Your task to perform on an android device: Go to sound settings Image 0: 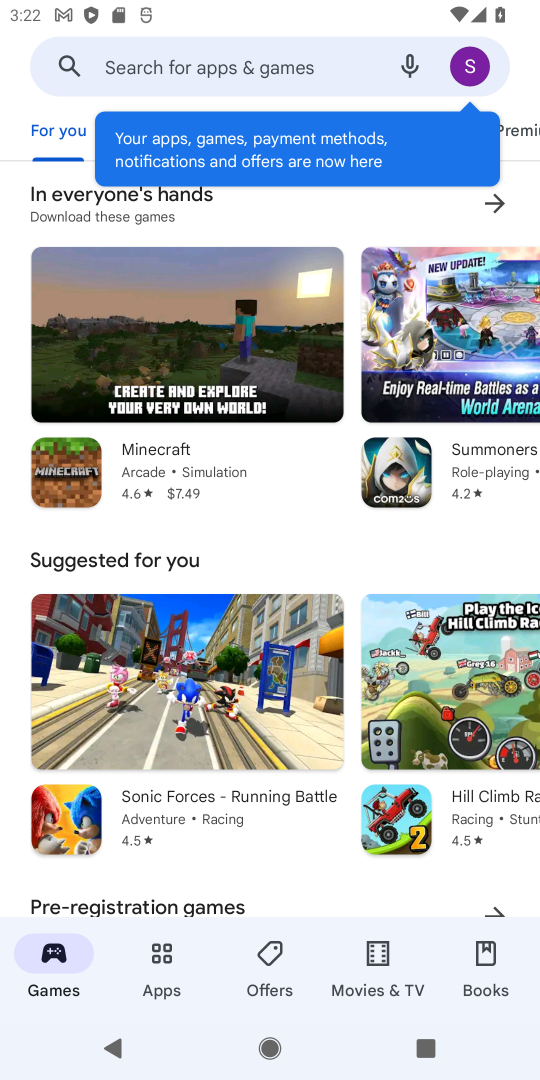
Step 0: press home button
Your task to perform on an android device: Go to sound settings Image 1: 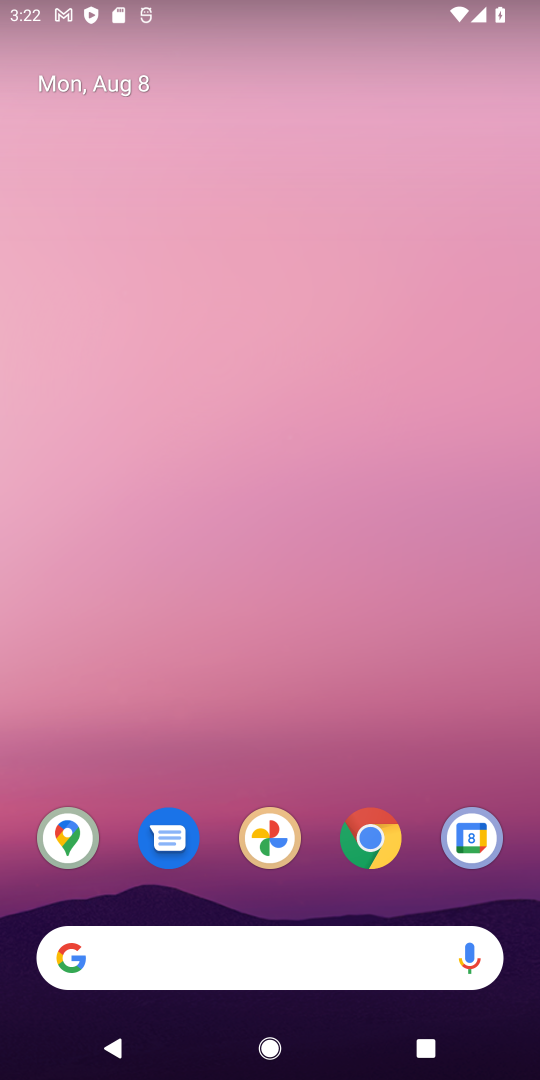
Step 1: drag from (233, 967) to (318, 290)
Your task to perform on an android device: Go to sound settings Image 2: 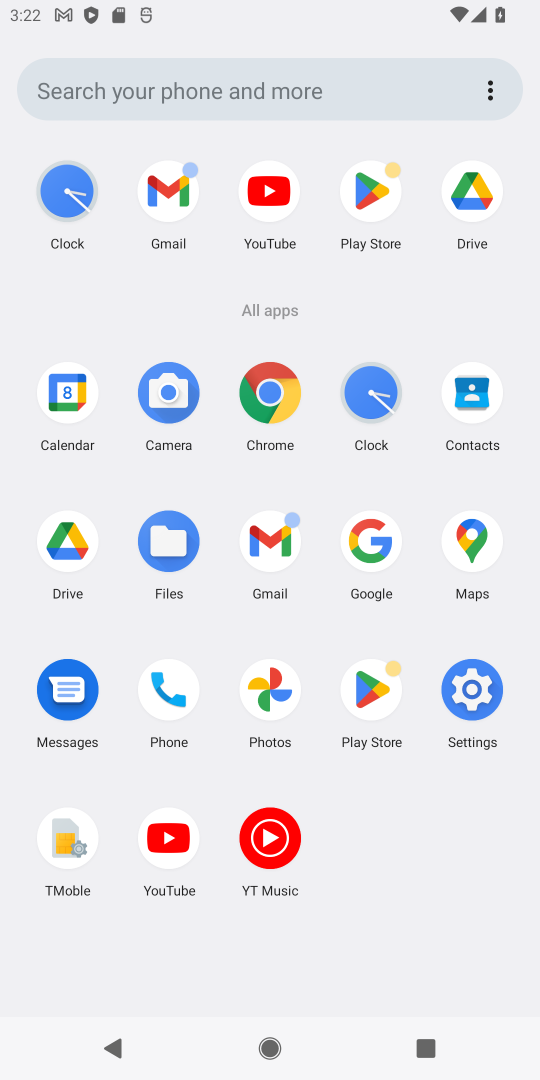
Step 2: click (470, 691)
Your task to perform on an android device: Go to sound settings Image 3: 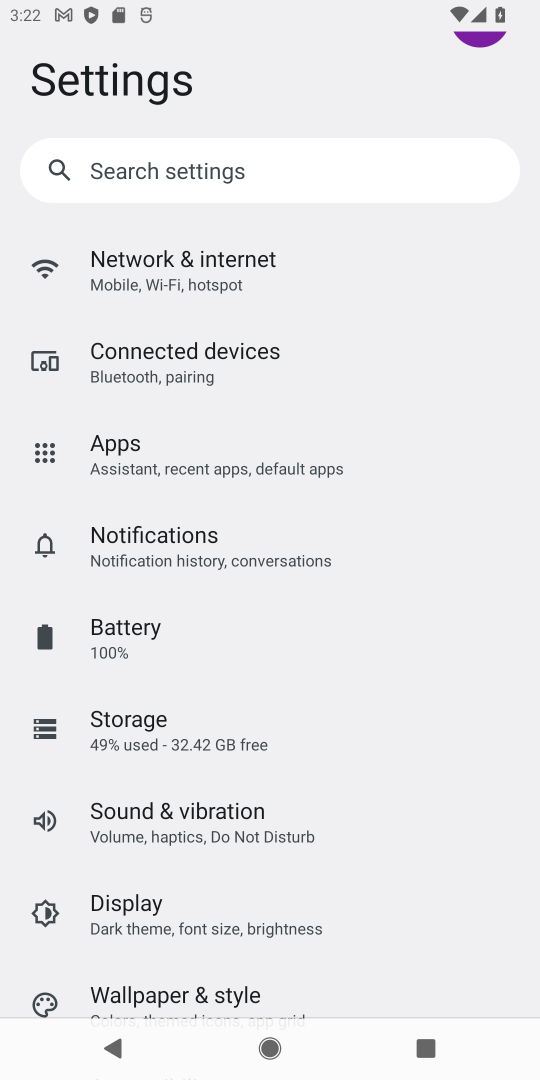
Step 3: click (243, 822)
Your task to perform on an android device: Go to sound settings Image 4: 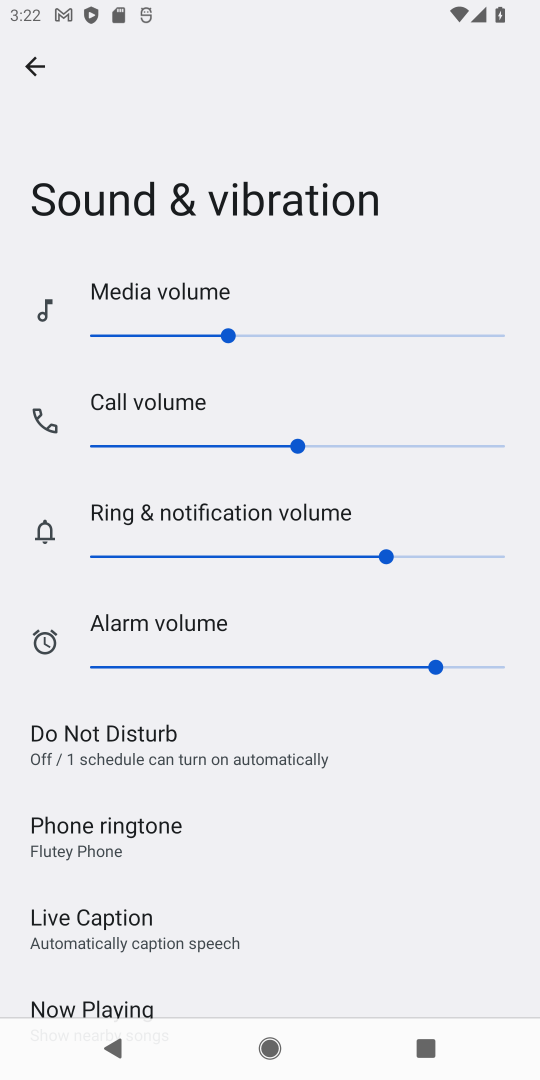
Step 4: task complete